Your task to perform on an android device: empty trash in google photos Image 0: 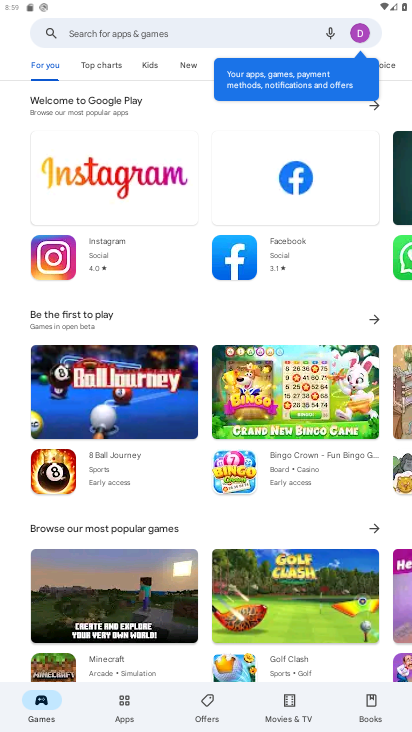
Step 0: press home button
Your task to perform on an android device: empty trash in google photos Image 1: 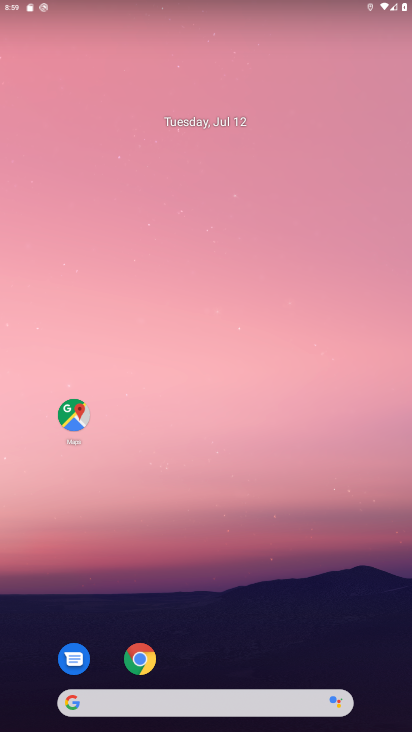
Step 1: drag from (266, 638) to (192, 82)
Your task to perform on an android device: empty trash in google photos Image 2: 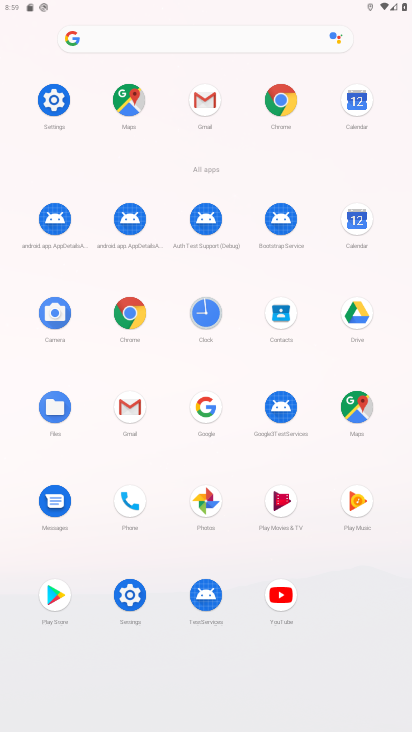
Step 2: click (210, 492)
Your task to perform on an android device: empty trash in google photos Image 3: 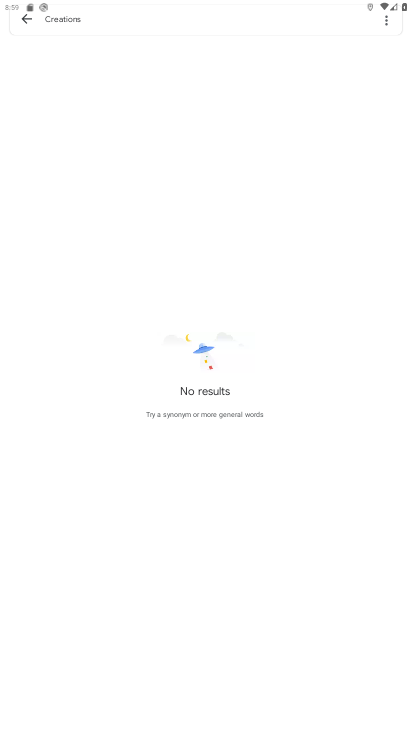
Step 3: click (26, 22)
Your task to perform on an android device: empty trash in google photos Image 4: 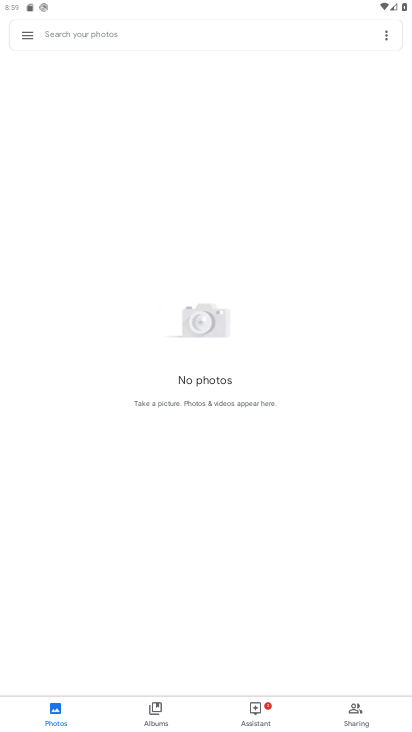
Step 4: click (29, 38)
Your task to perform on an android device: empty trash in google photos Image 5: 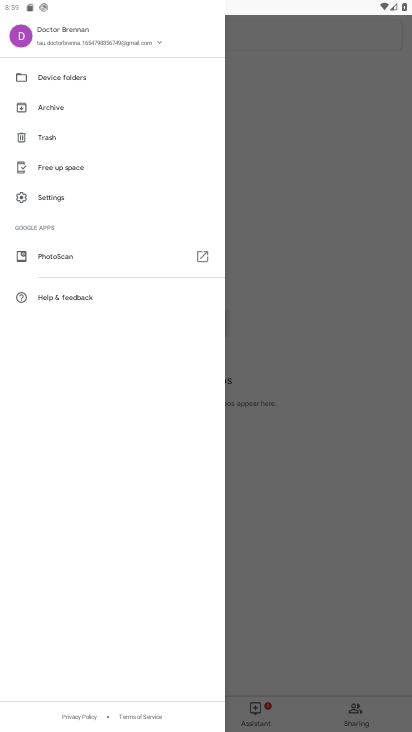
Step 5: click (50, 134)
Your task to perform on an android device: empty trash in google photos Image 6: 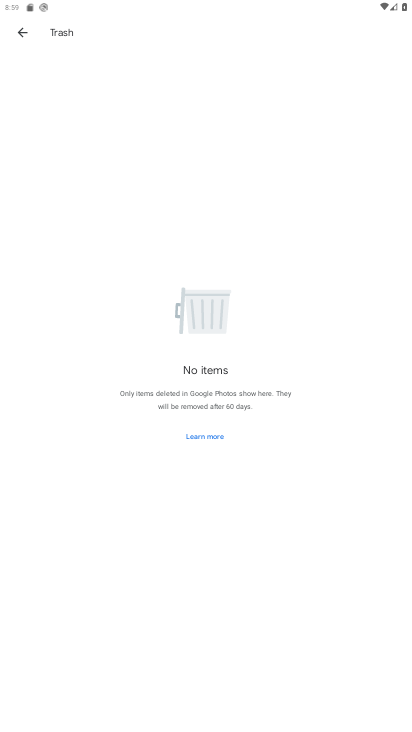
Step 6: task complete